Your task to perform on an android device: toggle priority inbox in the gmail app Image 0: 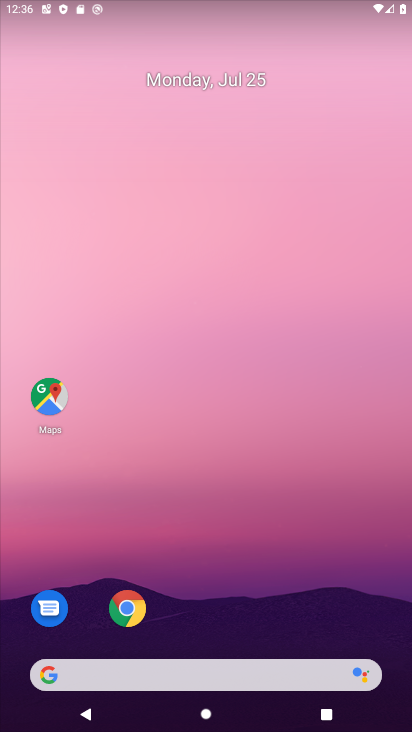
Step 0: drag from (247, 616) to (275, 178)
Your task to perform on an android device: toggle priority inbox in the gmail app Image 1: 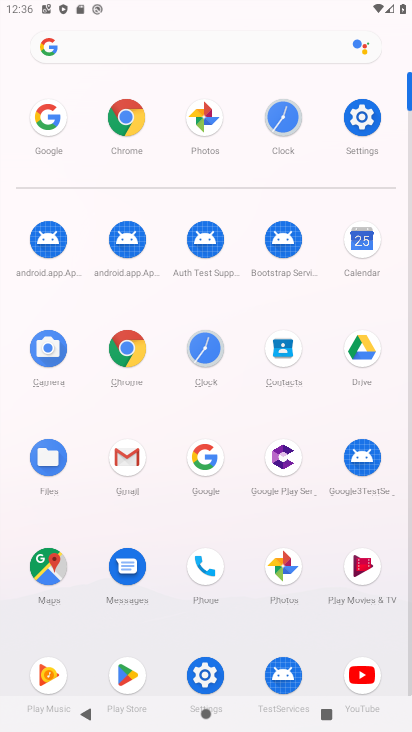
Step 1: click (129, 469)
Your task to perform on an android device: toggle priority inbox in the gmail app Image 2: 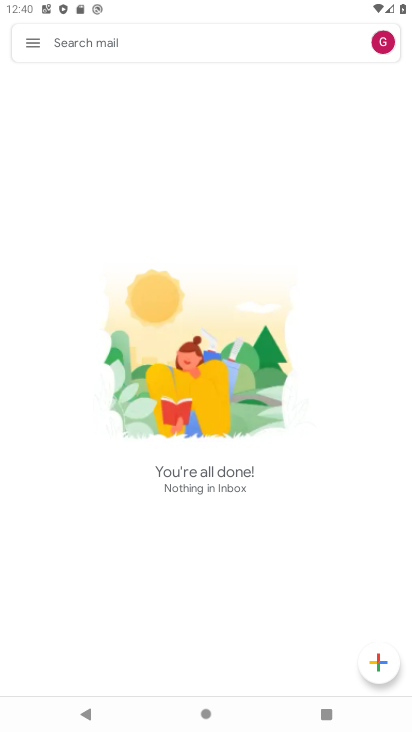
Step 2: click (27, 47)
Your task to perform on an android device: toggle priority inbox in the gmail app Image 3: 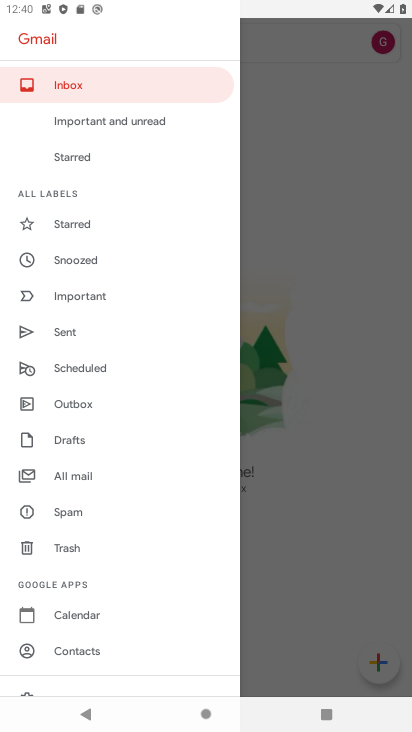
Step 3: drag from (82, 607) to (125, 304)
Your task to perform on an android device: toggle priority inbox in the gmail app Image 4: 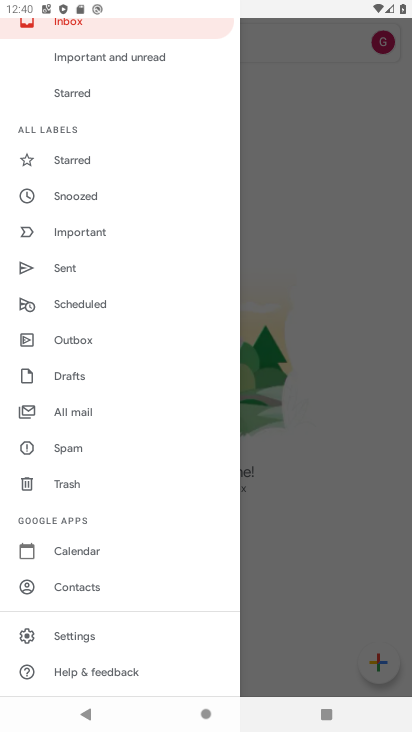
Step 4: click (100, 640)
Your task to perform on an android device: toggle priority inbox in the gmail app Image 5: 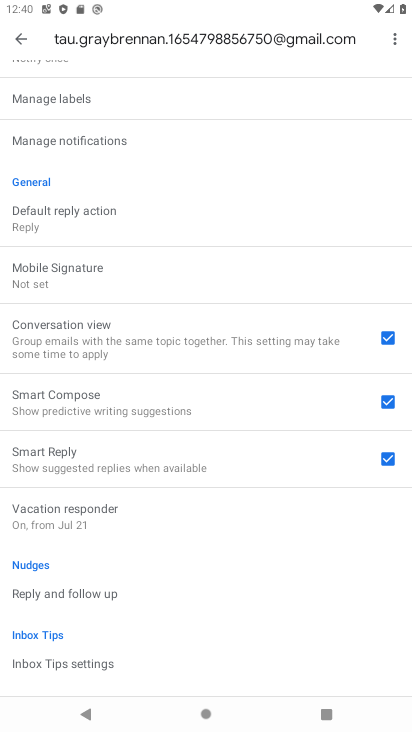
Step 5: drag from (195, 193) to (196, 681)
Your task to perform on an android device: toggle priority inbox in the gmail app Image 6: 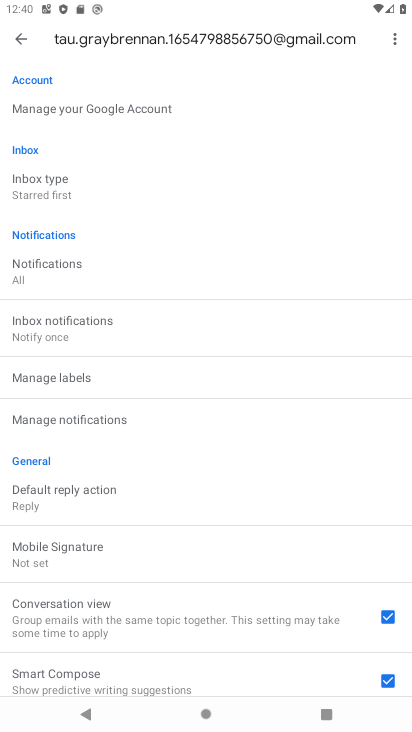
Step 6: click (107, 179)
Your task to perform on an android device: toggle priority inbox in the gmail app Image 7: 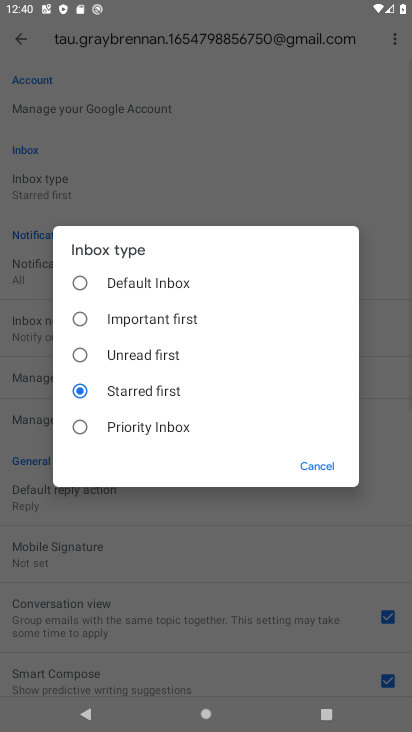
Step 7: click (183, 426)
Your task to perform on an android device: toggle priority inbox in the gmail app Image 8: 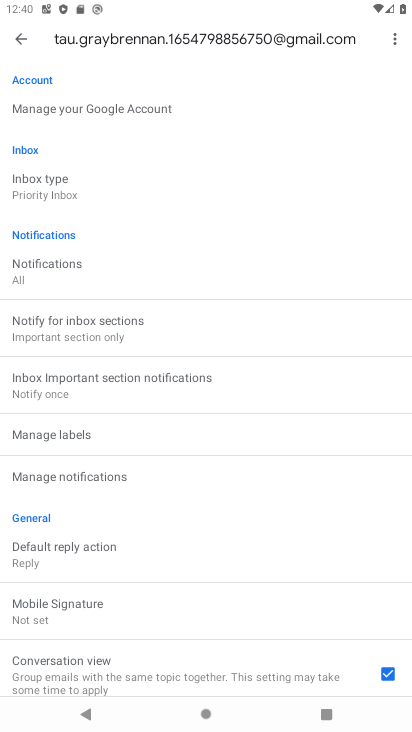
Step 8: task complete